Your task to perform on an android device: check out phone information Image 0: 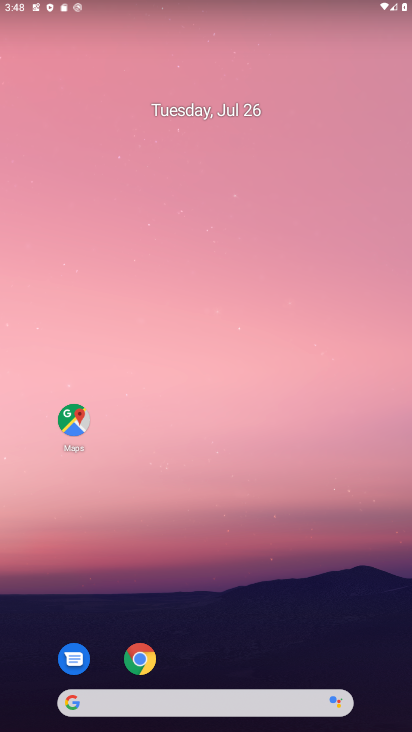
Step 0: drag from (315, 600) to (231, 97)
Your task to perform on an android device: check out phone information Image 1: 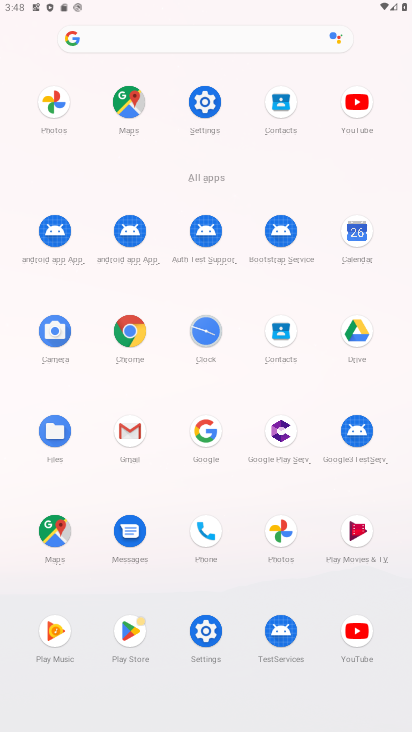
Step 1: click (200, 110)
Your task to perform on an android device: check out phone information Image 2: 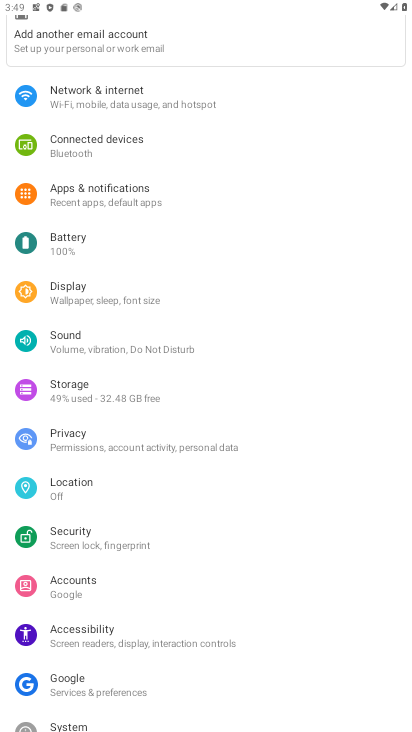
Step 2: drag from (122, 610) to (92, 254)
Your task to perform on an android device: check out phone information Image 3: 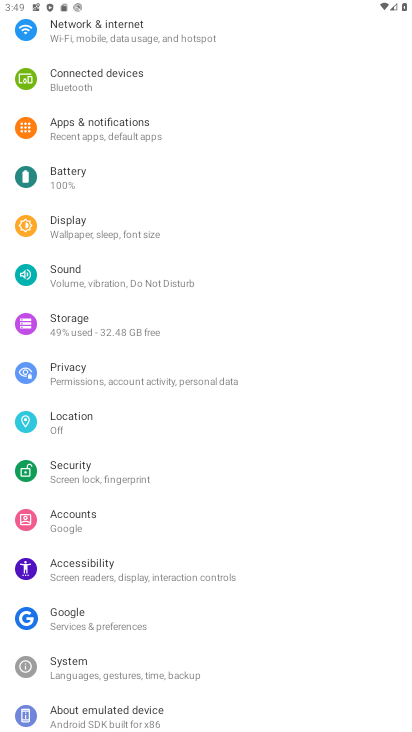
Step 3: click (97, 701)
Your task to perform on an android device: check out phone information Image 4: 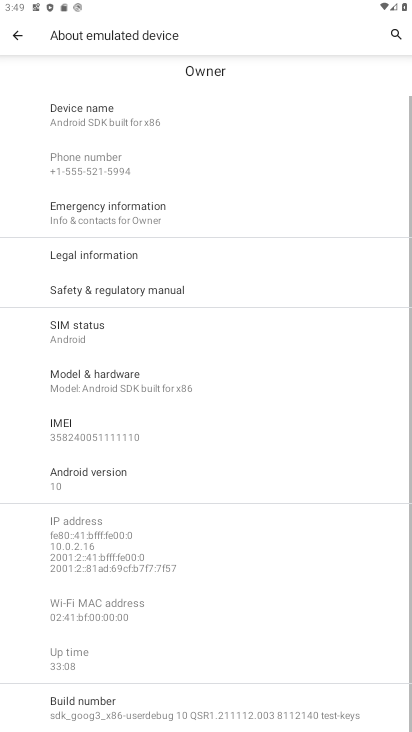
Step 4: task complete